Your task to perform on an android device: Open display settings Image 0: 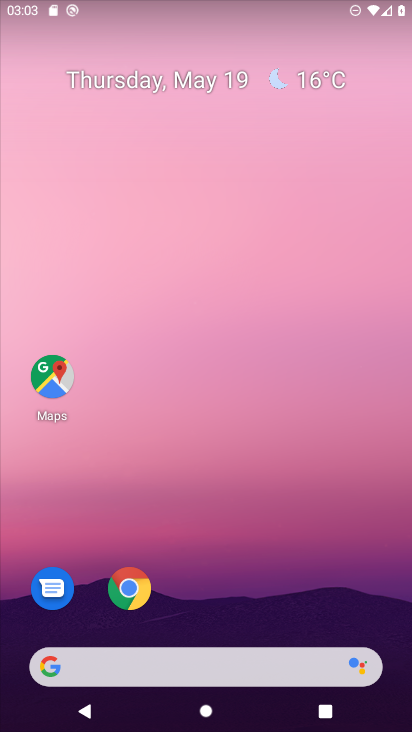
Step 0: drag from (239, 605) to (294, 9)
Your task to perform on an android device: Open display settings Image 1: 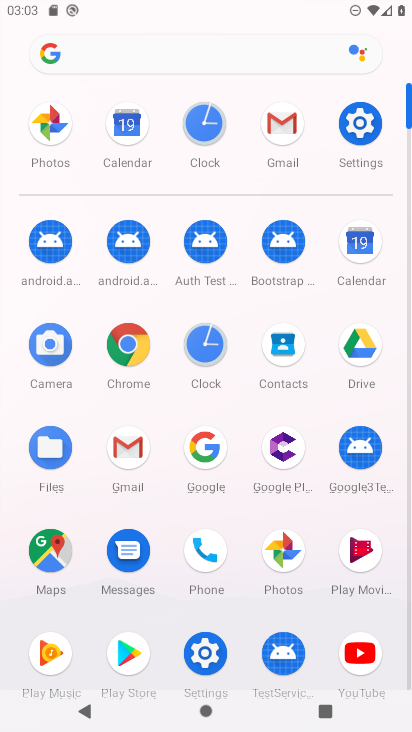
Step 1: click (355, 150)
Your task to perform on an android device: Open display settings Image 2: 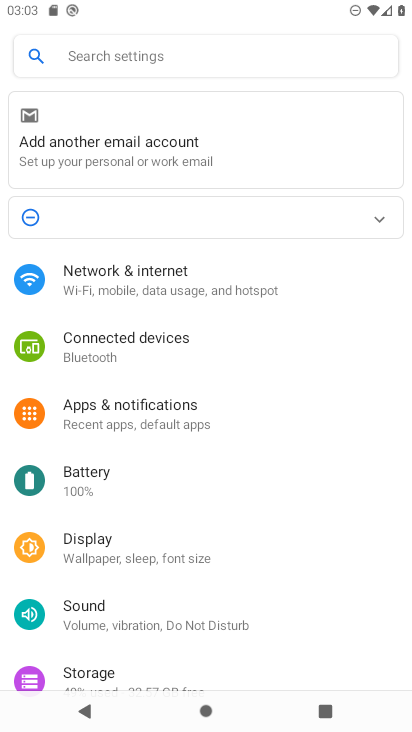
Step 2: click (100, 538)
Your task to perform on an android device: Open display settings Image 3: 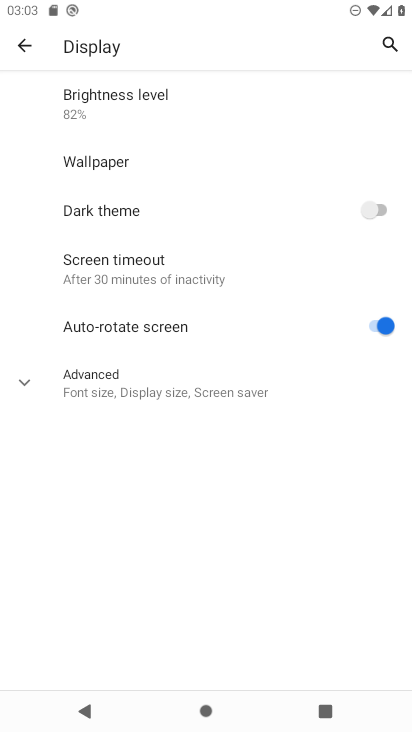
Step 3: task complete